Your task to perform on an android device: Go to Amazon Image 0: 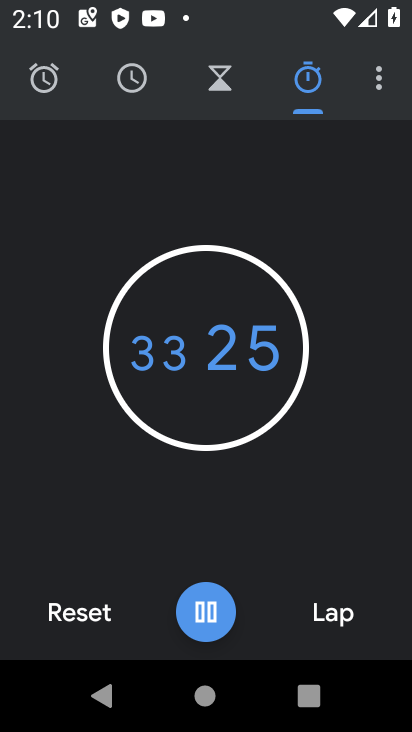
Step 0: press home button
Your task to perform on an android device: Go to Amazon Image 1: 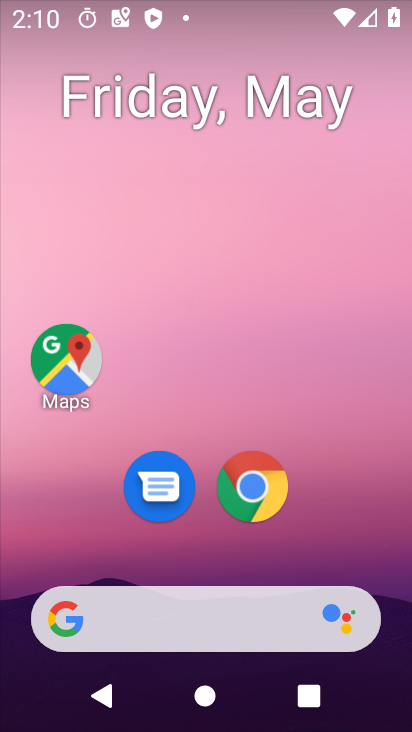
Step 1: click (248, 485)
Your task to perform on an android device: Go to Amazon Image 2: 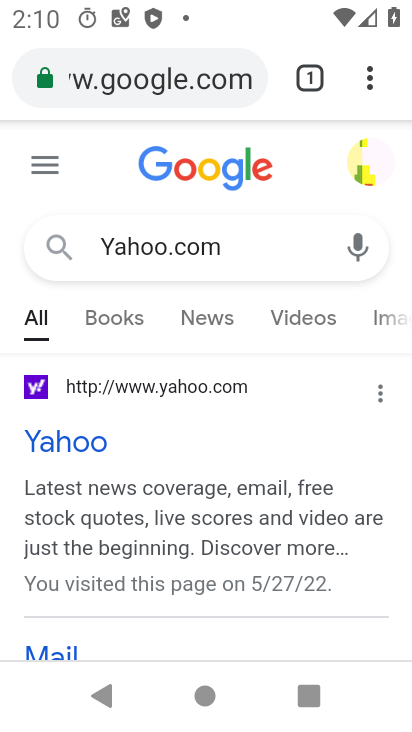
Step 2: click (253, 85)
Your task to perform on an android device: Go to Amazon Image 3: 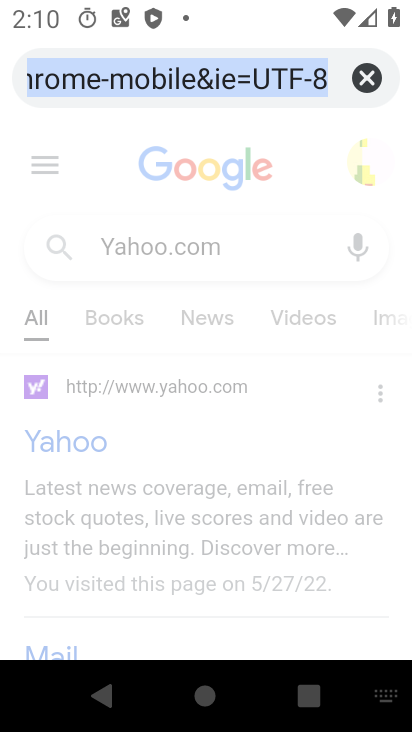
Step 3: click (359, 77)
Your task to perform on an android device: Go to Amazon Image 4: 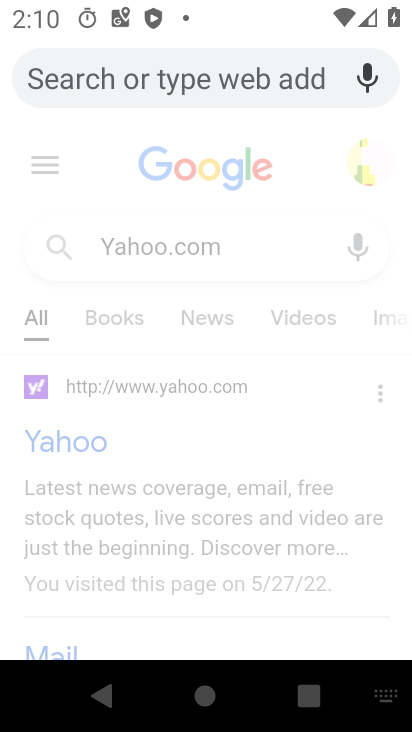
Step 4: type "Amazon"
Your task to perform on an android device: Go to Amazon Image 5: 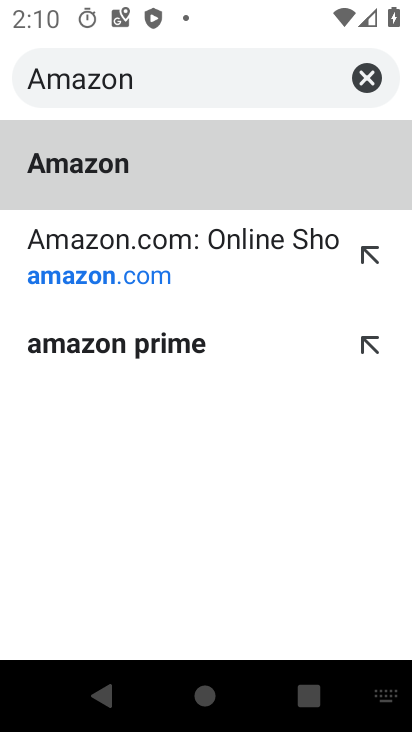
Step 5: click (64, 179)
Your task to perform on an android device: Go to Amazon Image 6: 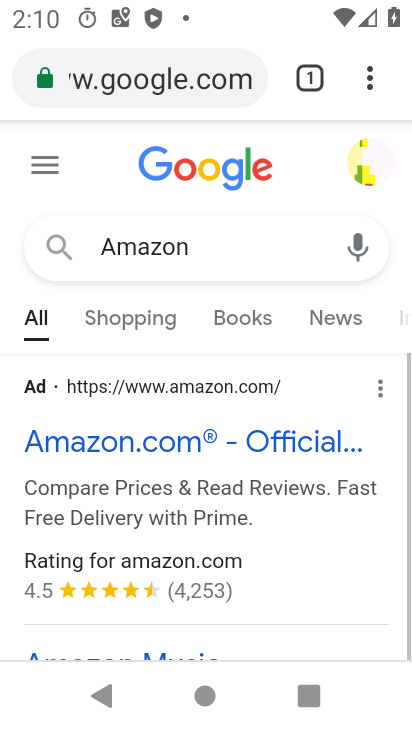
Step 6: task complete